Your task to perform on an android device: Go to eBay Image 0: 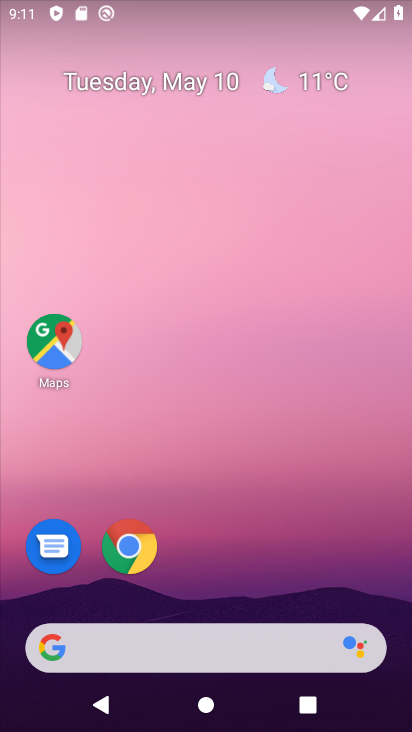
Step 0: click (117, 536)
Your task to perform on an android device: Go to eBay Image 1: 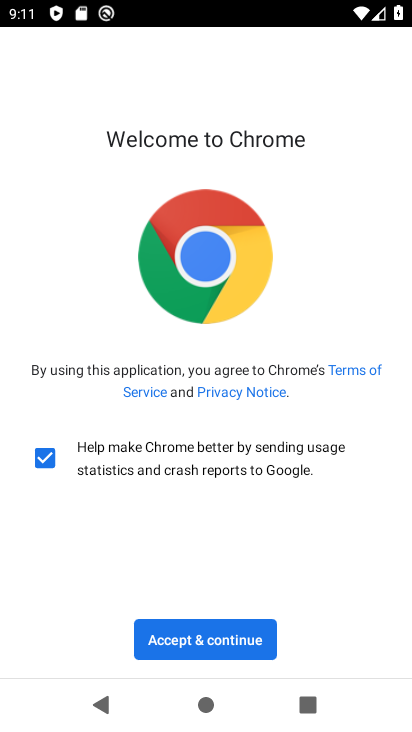
Step 1: click (202, 635)
Your task to perform on an android device: Go to eBay Image 2: 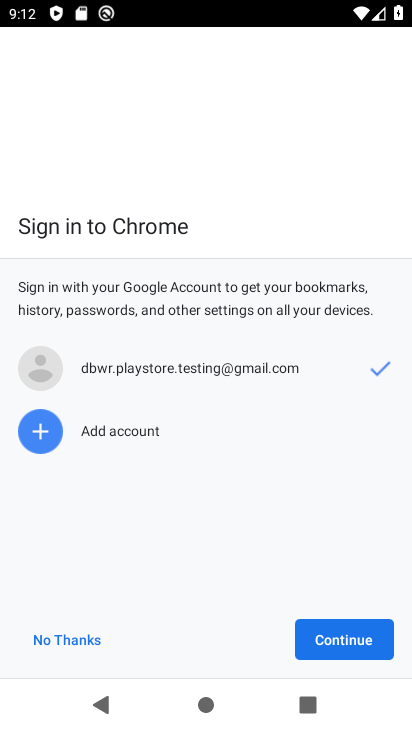
Step 2: click (363, 647)
Your task to perform on an android device: Go to eBay Image 3: 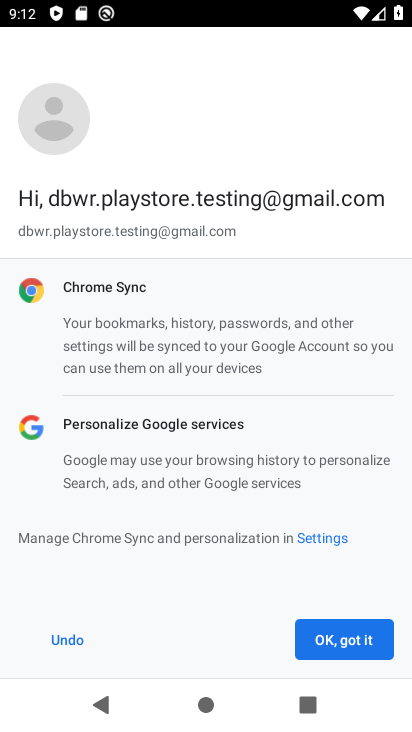
Step 3: click (345, 647)
Your task to perform on an android device: Go to eBay Image 4: 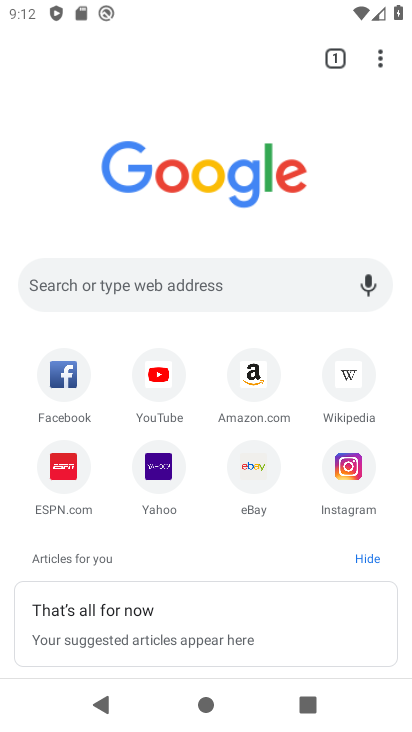
Step 4: click (329, 63)
Your task to perform on an android device: Go to eBay Image 5: 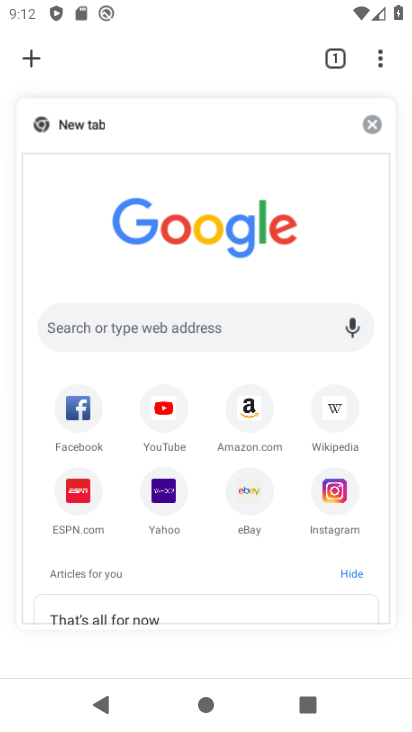
Step 5: click (33, 56)
Your task to perform on an android device: Go to eBay Image 6: 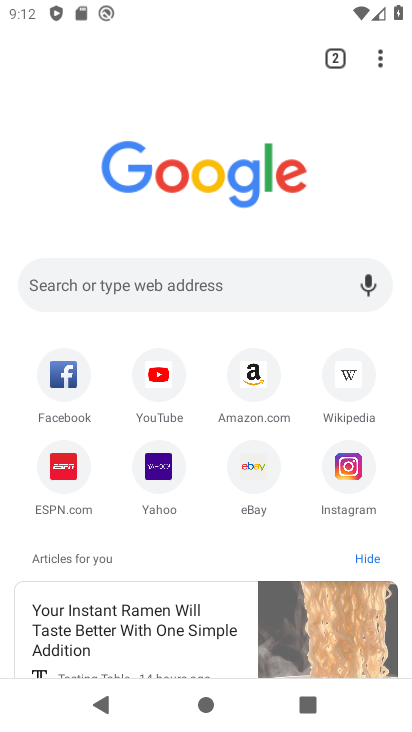
Step 6: click (110, 274)
Your task to perform on an android device: Go to eBay Image 7: 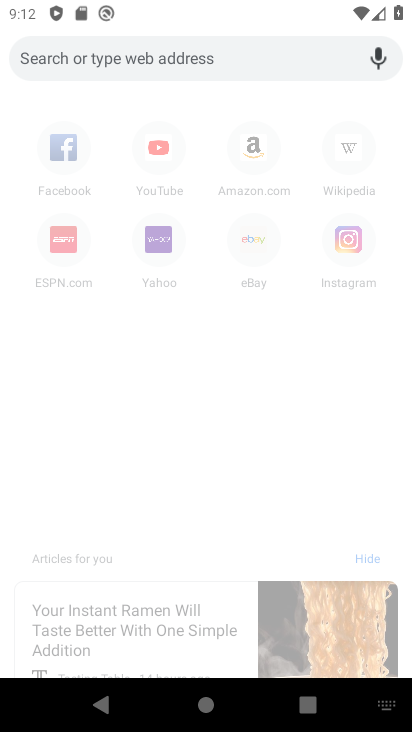
Step 7: type "ebay"
Your task to perform on an android device: Go to eBay Image 8: 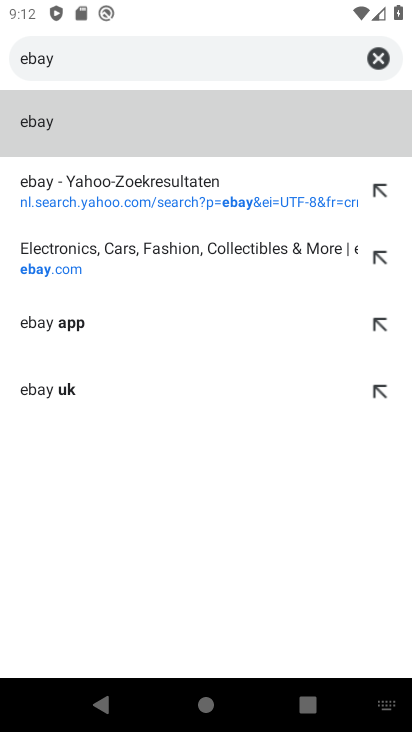
Step 8: click (89, 246)
Your task to perform on an android device: Go to eBay Image 9: 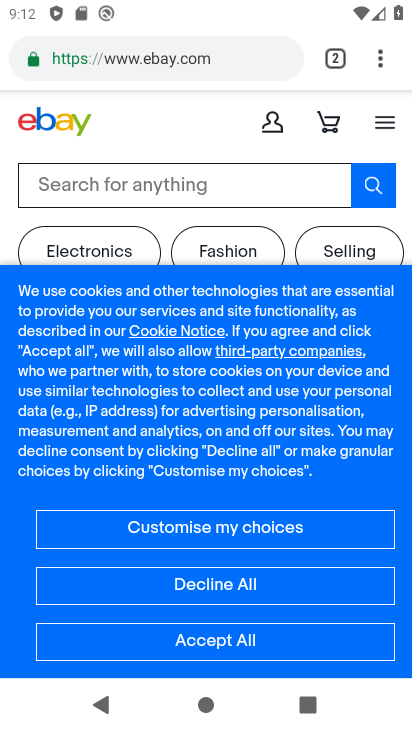
Step 9: task complete